Your task to perform on an android device: Open Amazon Image 0: 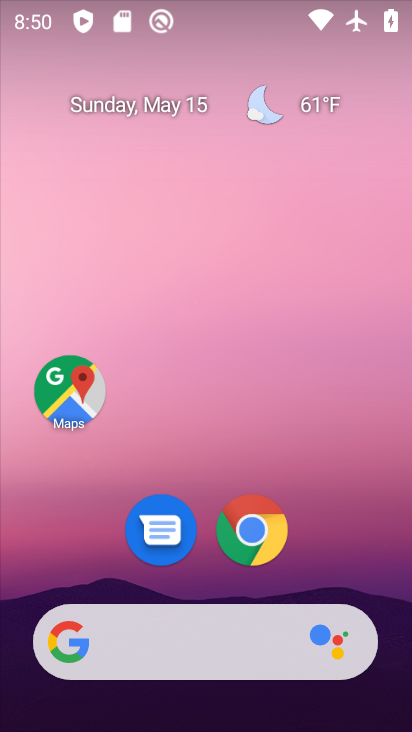
Step 0: click (250, 532)
Your task to perform on an android device: Open Amazon Image 1: 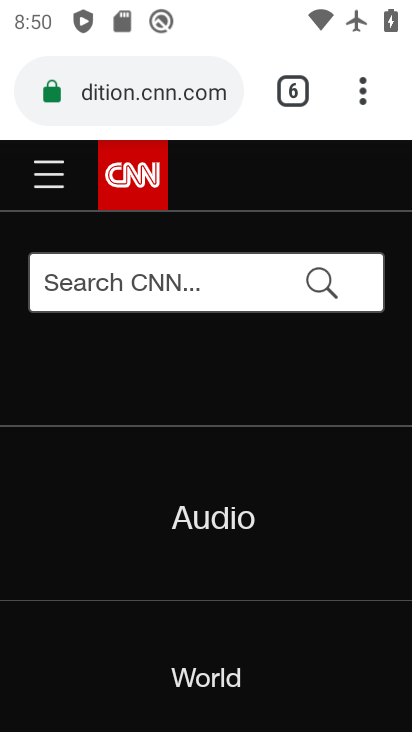
Step 1: click (359, 102)
Your task to perform on an android device: Open Amazon Image 2: 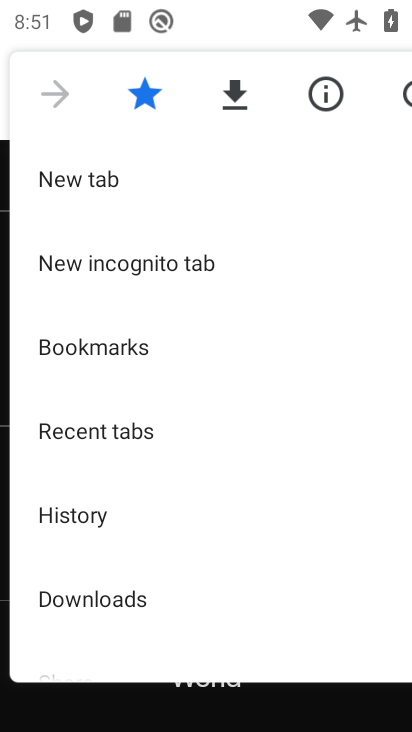
Step 2: click (81, 179)
Your task to perform on an android device: Open Amazon Image 3: 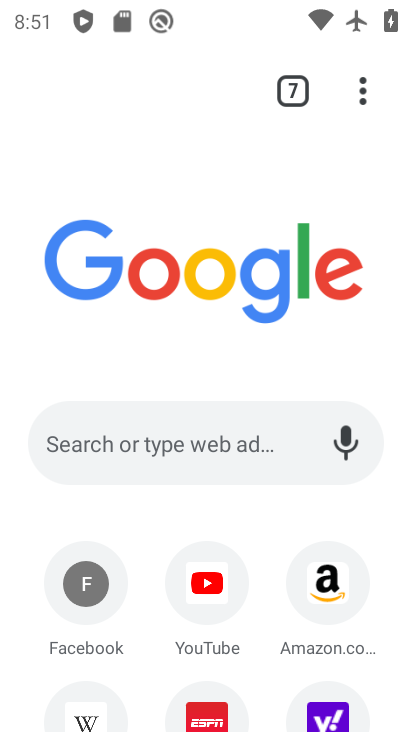
Step 3: click (150, 446)
Your task to perform on an android device: Open Amazon Image 4: 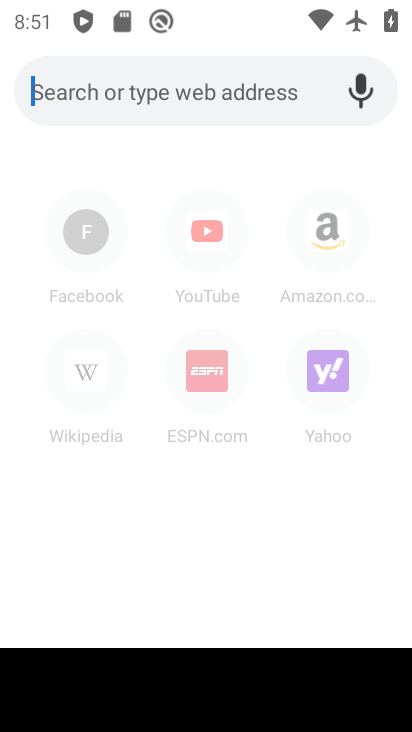
Step 4: type "Amazon"
Your task to perform on an android device: Open Amazon Image 5: 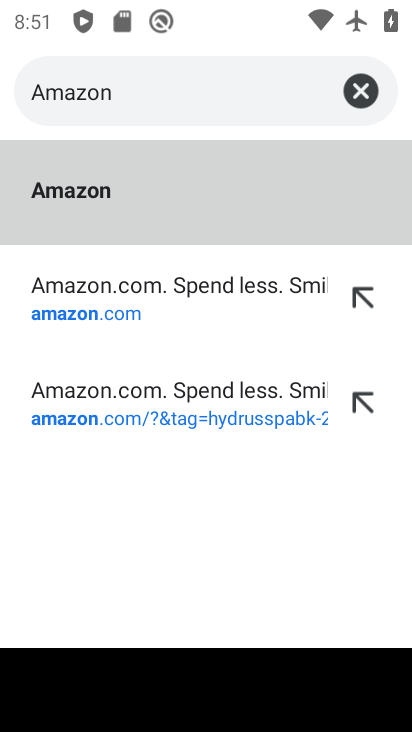
Step 5: click (74, 192)
Your task to perform on an android device: Open Amazon Image 6: 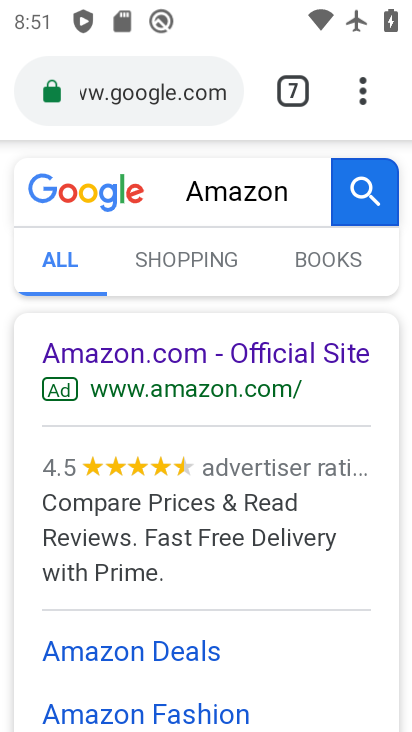
Step 6: click (159, 357)
Your task to perform on an android device: Open Amazon Image 7: 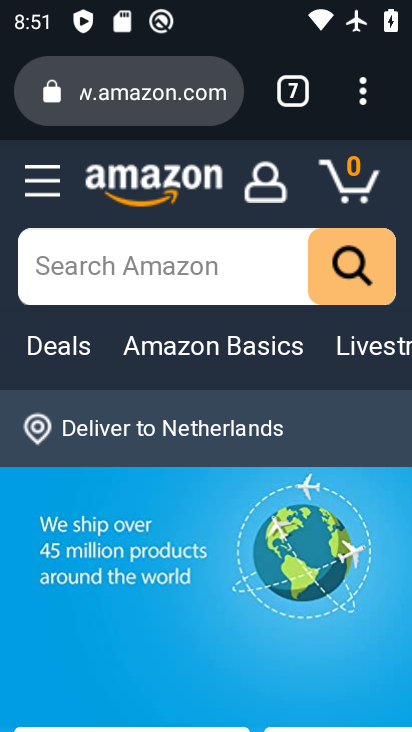
Step 7: task complete